Your task to perform on an android device: delete a single message in the gmail app Image 0: 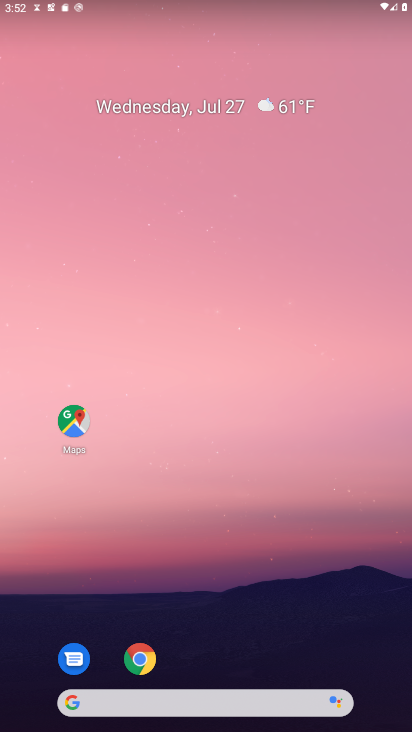
Step 0: drag from (194, 725) to (201, 51)
Your task to perform on an android device: delete a single message in the gmail app Image 1: 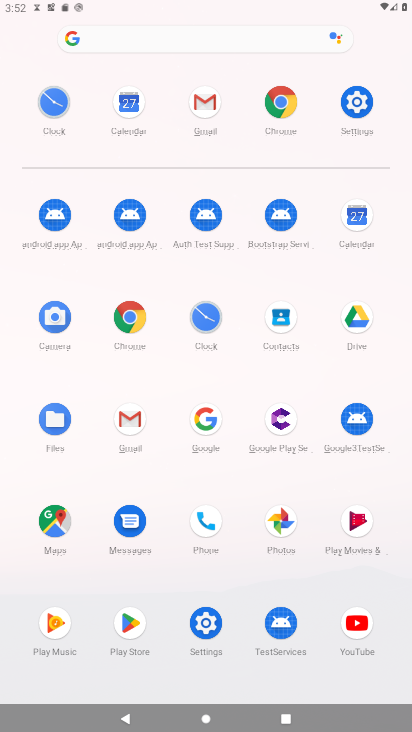
Step 1: click (116, 426)
Your task to perform on an android device: delete a single message in the gmail app Image 2: 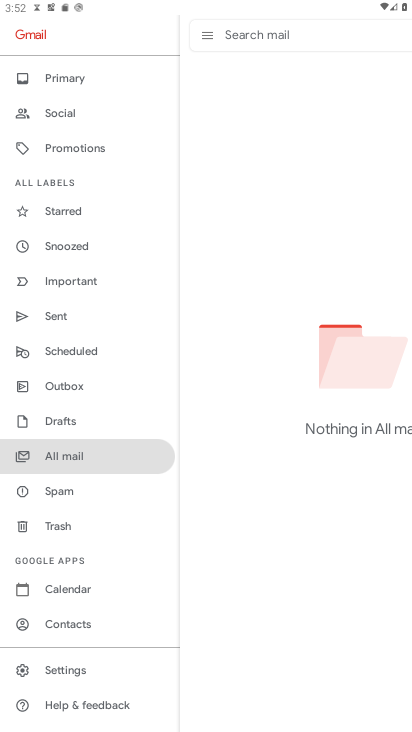
Step 2: click (103, 458)
Your task to perform on an android device: delete a single message in the gmail app Image 3: 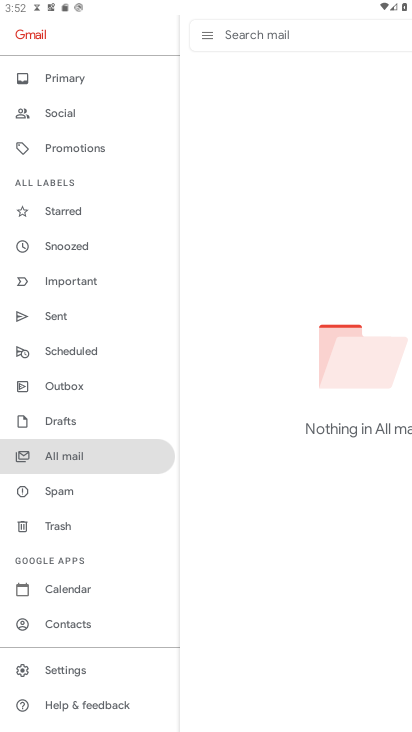
Step 3: task complete